Your task to perform on an android device: Go to Google maps Image 0: 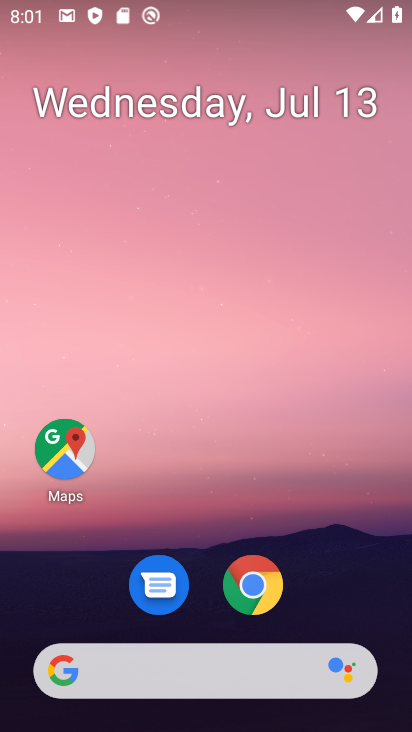
Step 0: click (70, 438)
Your task to perform on an android device: Go to Google maps Image 1: 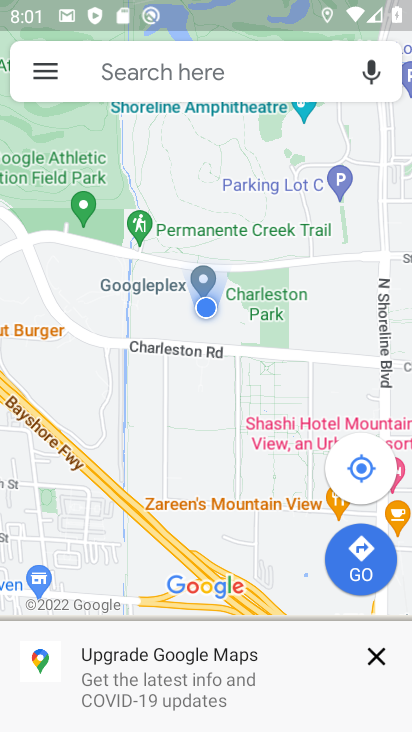
Step 1: task complete